Your task to perform on an android device: turn on priority inbox in the gmail app Image 0: 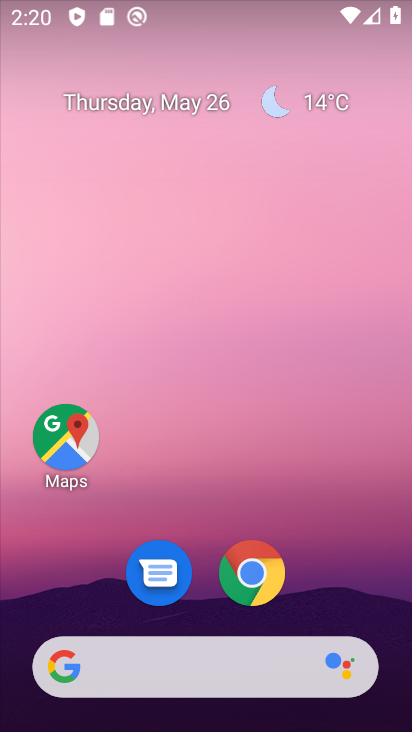
Step 0: drag from (315, 454) to (224, 66)
Your task to perform on an android device: turn on priority inbox in the gmail app Image 1: 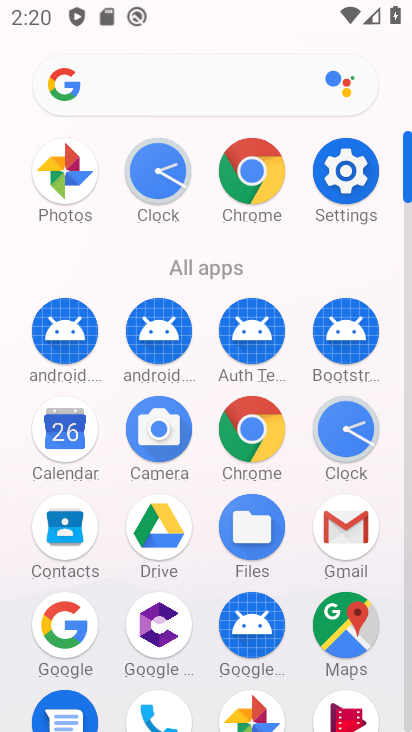
Step 1: drag from (0, 568) to (33, 179)
Your task to perform on an android device: turn on priority inbox in the gmail app Image 2: 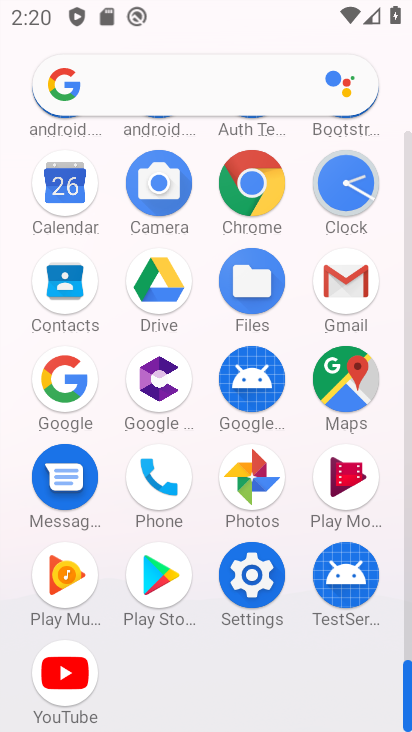
Step 2: click (345, 283)
Your task to perform on an android device: turn on priority inbox in the gmail app Image 3: 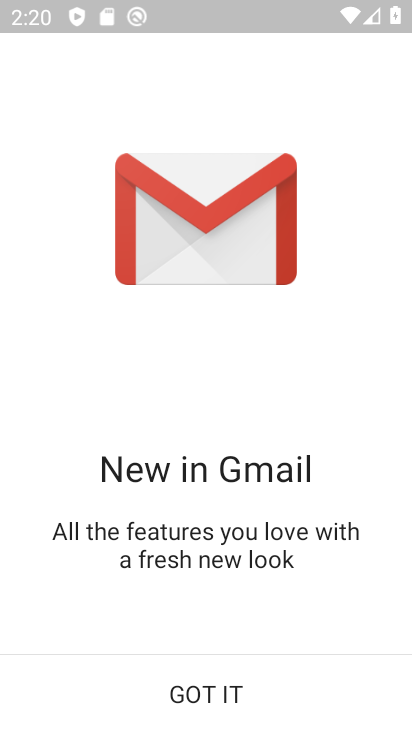
Step 3: click (189, 693)
Your task to perform on an android device: turn on priority inbox in the gmail app Image 4: 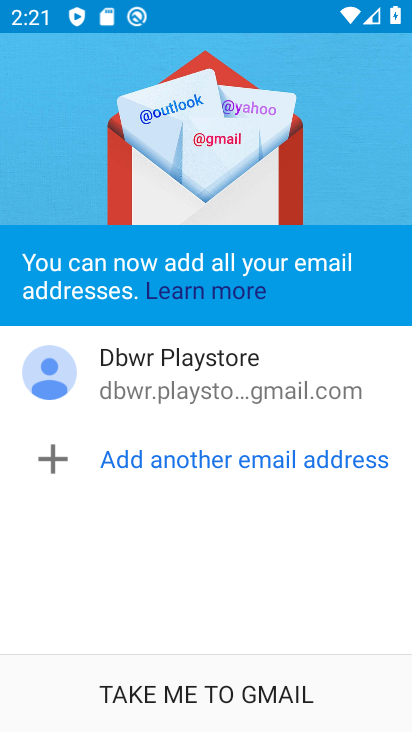
Step 4: click (187, 679)
Your task to perform on an android device: turn on priority inbox in the gmail app Image 5: 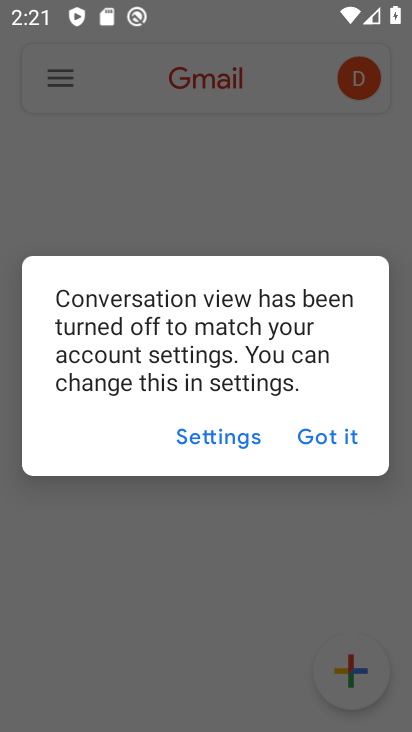
Step 5: click (340, 429)
Your task to perform on an android device: turn on priority inbox in the gmail app Image 6: 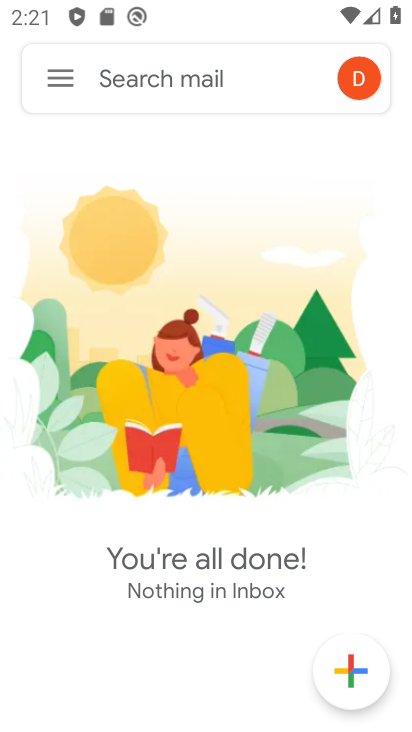
Step 6: click (71, 61)
Your task to perform on an android device: turn on priority inbox in the gmail app Image 7: 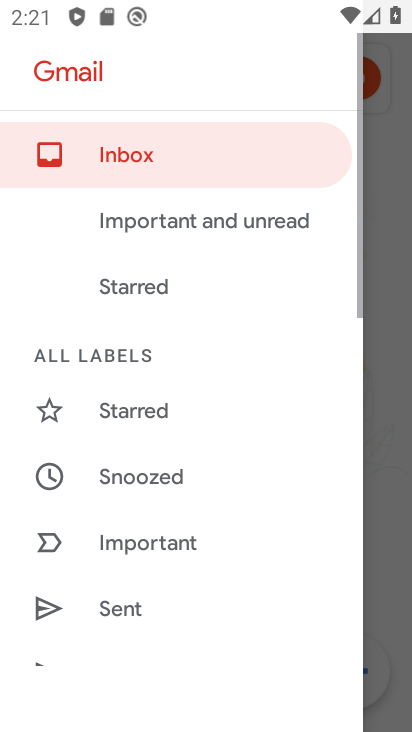
Step 7: drag from (135, 585) to (168, 176)
Your task to perform on an android device: turn on priority inbox in the gmail app Image 8: 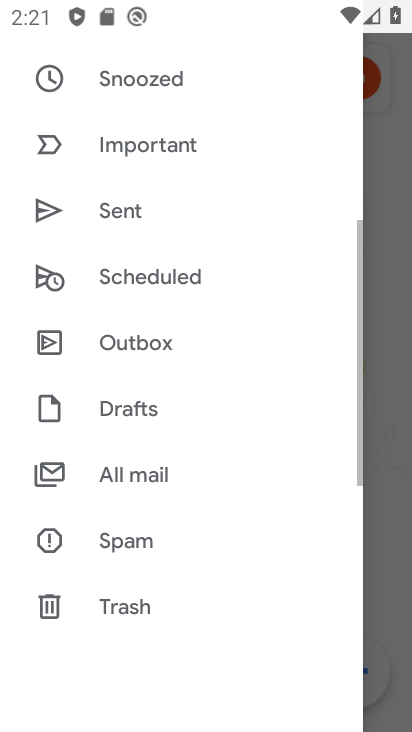
Step 8: drag from (127, 602) to (149, 181)
Your task to perform on an android device: turn on priority inbox in the gmail app Image 9: 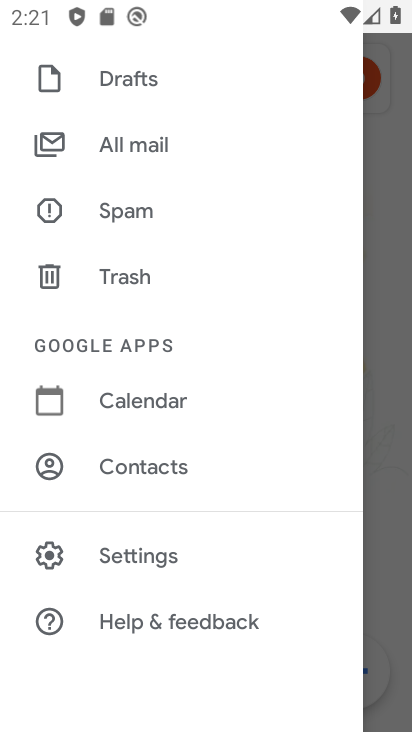
Step 9: click (121, 560)
Your task to perform on an android device: turn on priority inbox in the gmail app Image 10: 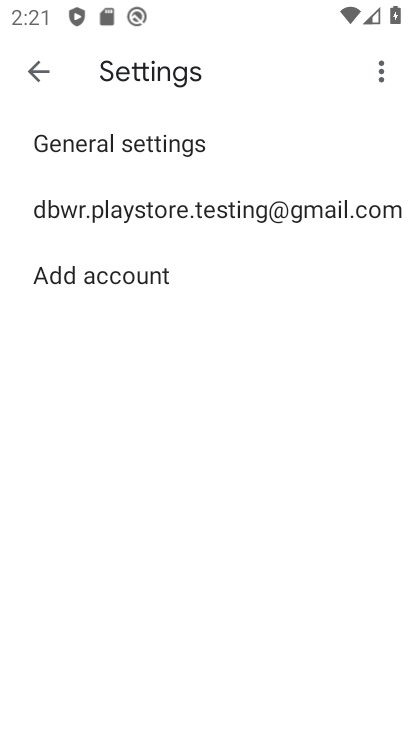
Step 10: click (167, 218)
Your task to perform on an android device: turn on priority inbox in the gmail app Image 11: 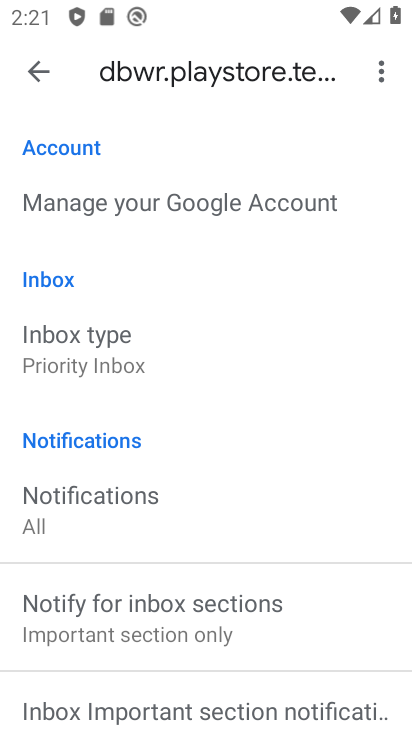
Step 11: task complete